Your task to perform on an android device: What's the news in Ecuador? Image 0: 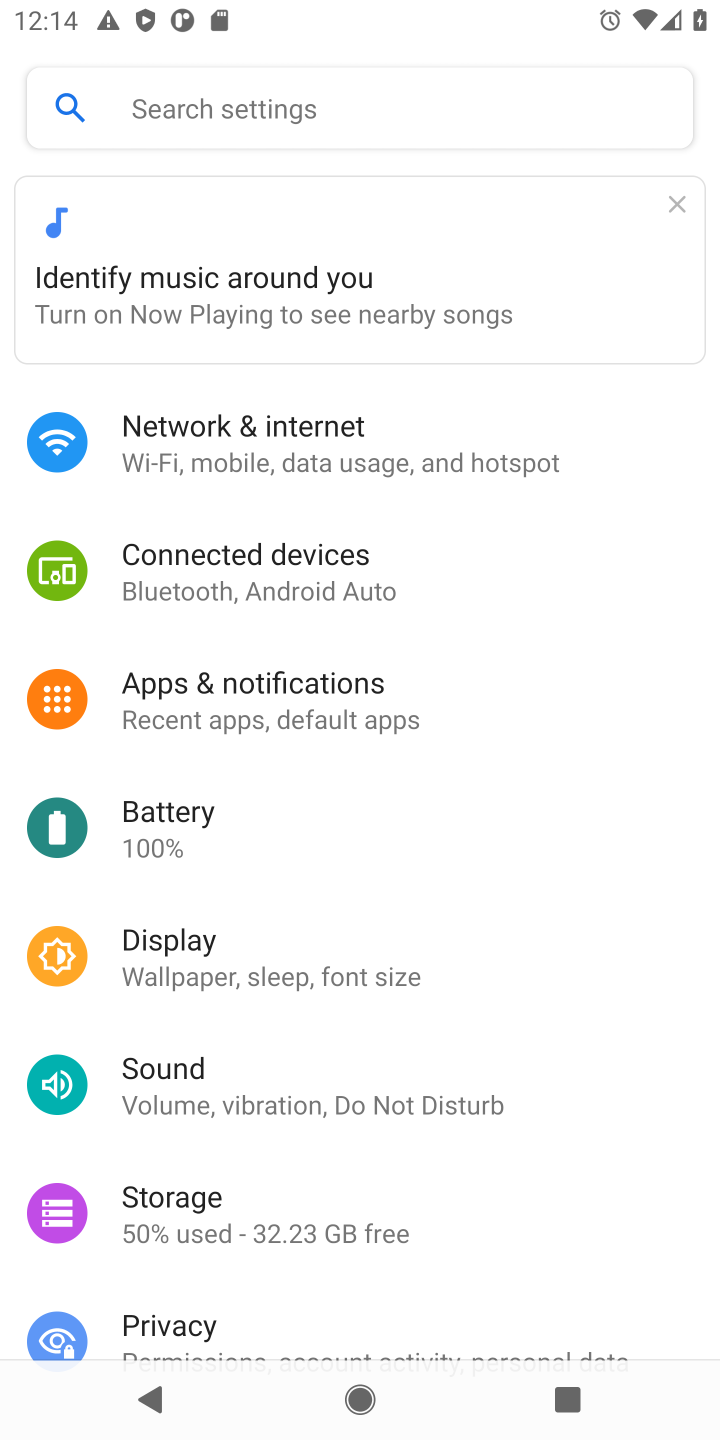
Step 0: press home button
Your task to perform on an android device: What's the news in Ecuador? Image 1: 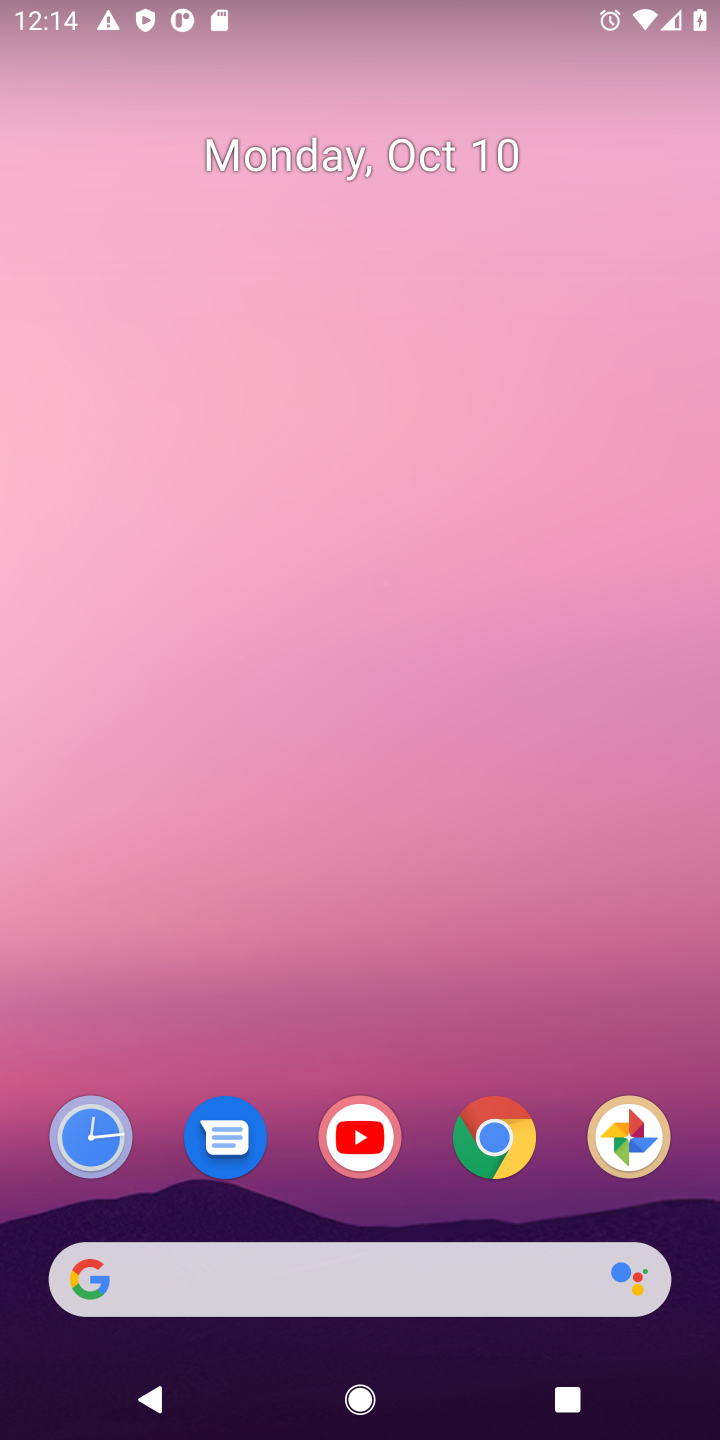
Step 1: drag from (533, 1072) to (620, 85)
Your task to perform on an android device: What's the news in Ecuador? Image 2: 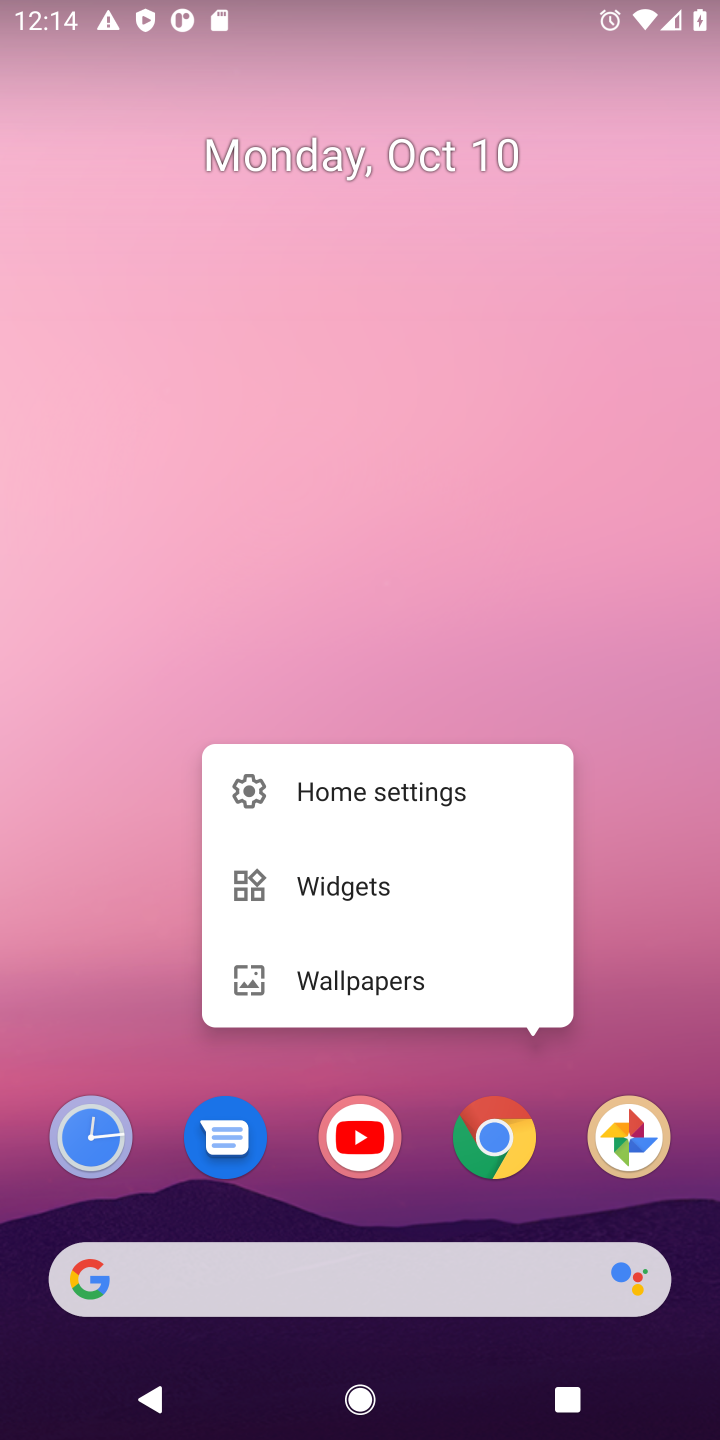
Step 2: click (441, 463)
Your task to perform on an android device: What's the news in Ecuador? Image 3: 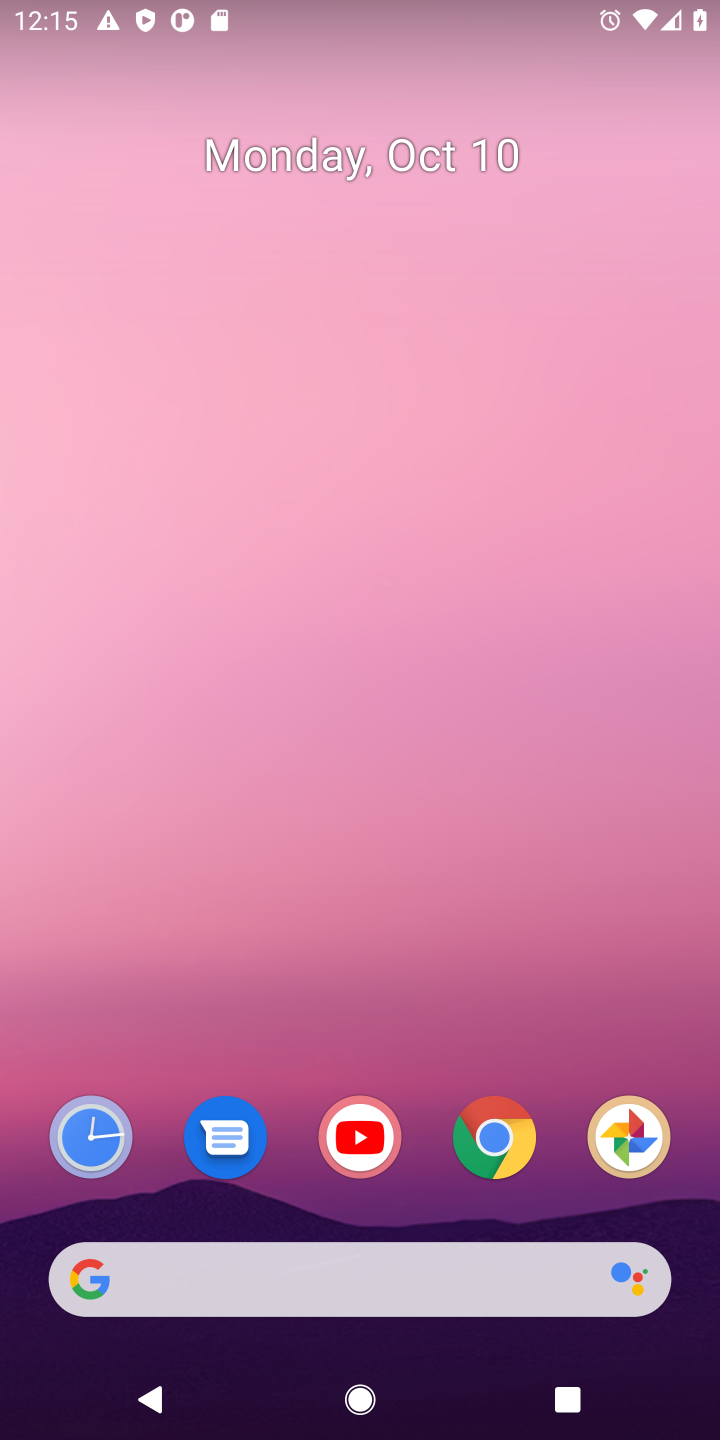
Step 3: drag from (566, 1052) to (585, 6)
Your task to perform on an android device: What's the news in Ecuador? Image 4: 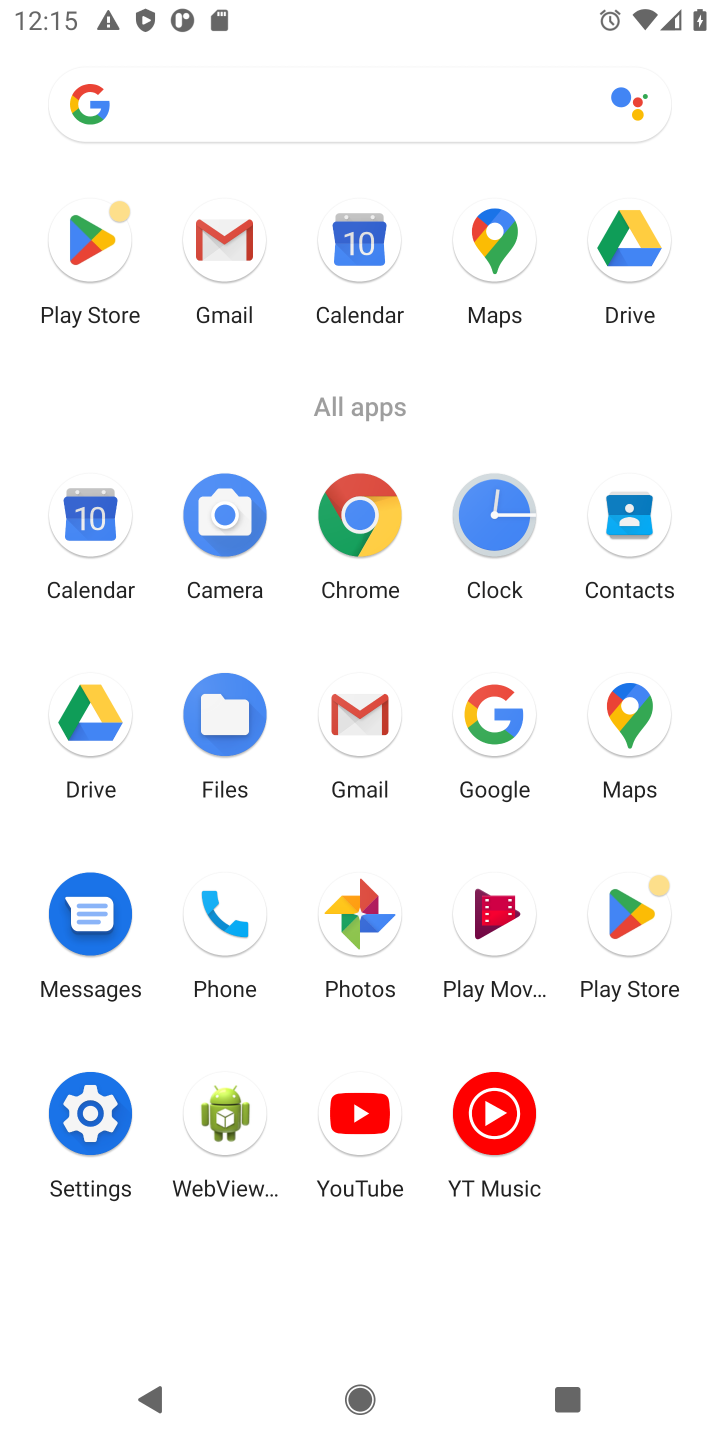
Step 4: click (364, 498)
Your task to perform on an android device: What's the news in Ecuador? Image 5: 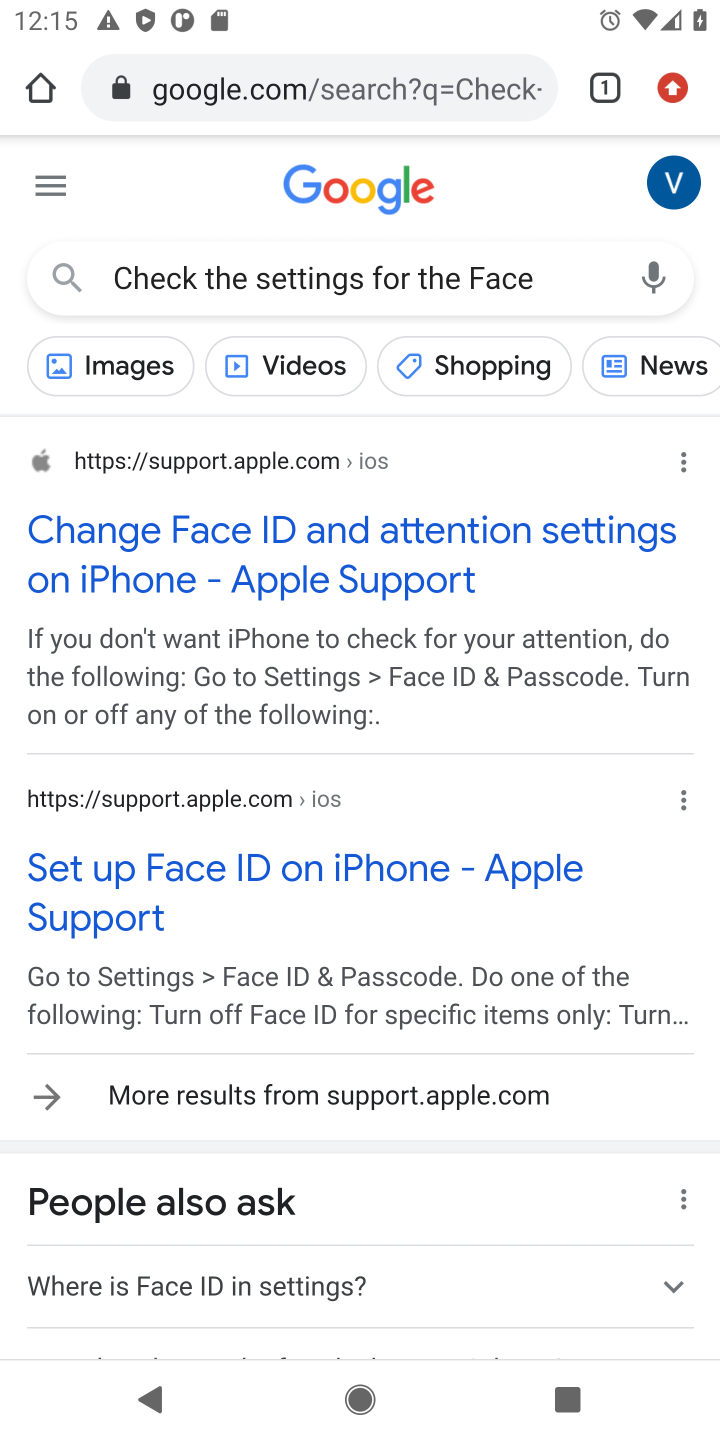
Step 5: click (453, 89)
Your task to perform on an android device: What's the news in Ecuador? Image 6: 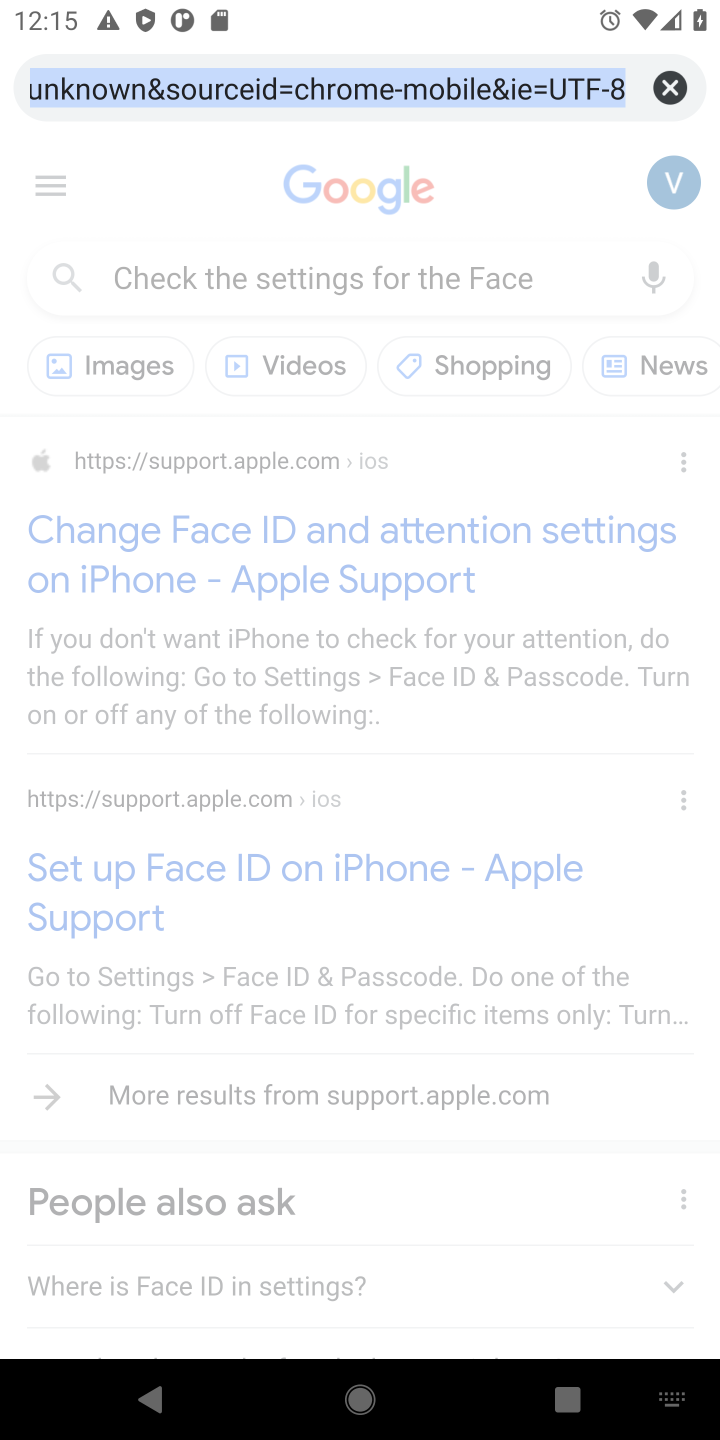
Step 6: click (674, 79)
Your task to perform on an android device: What's the news in Ecuador? Image 7: 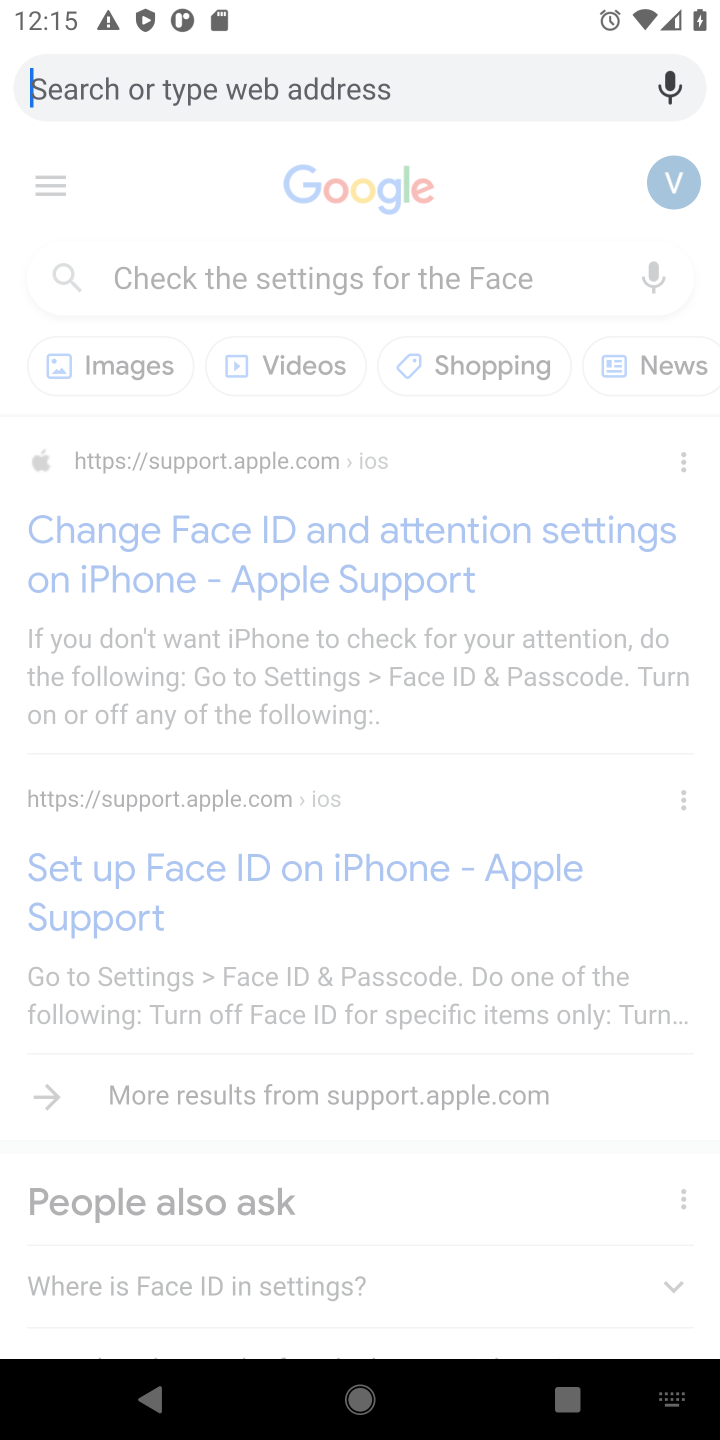
Step 7: type "What's the news in Ecuador?"
Your task to perform on an android device: What's the news in Ecuador? Image 8: 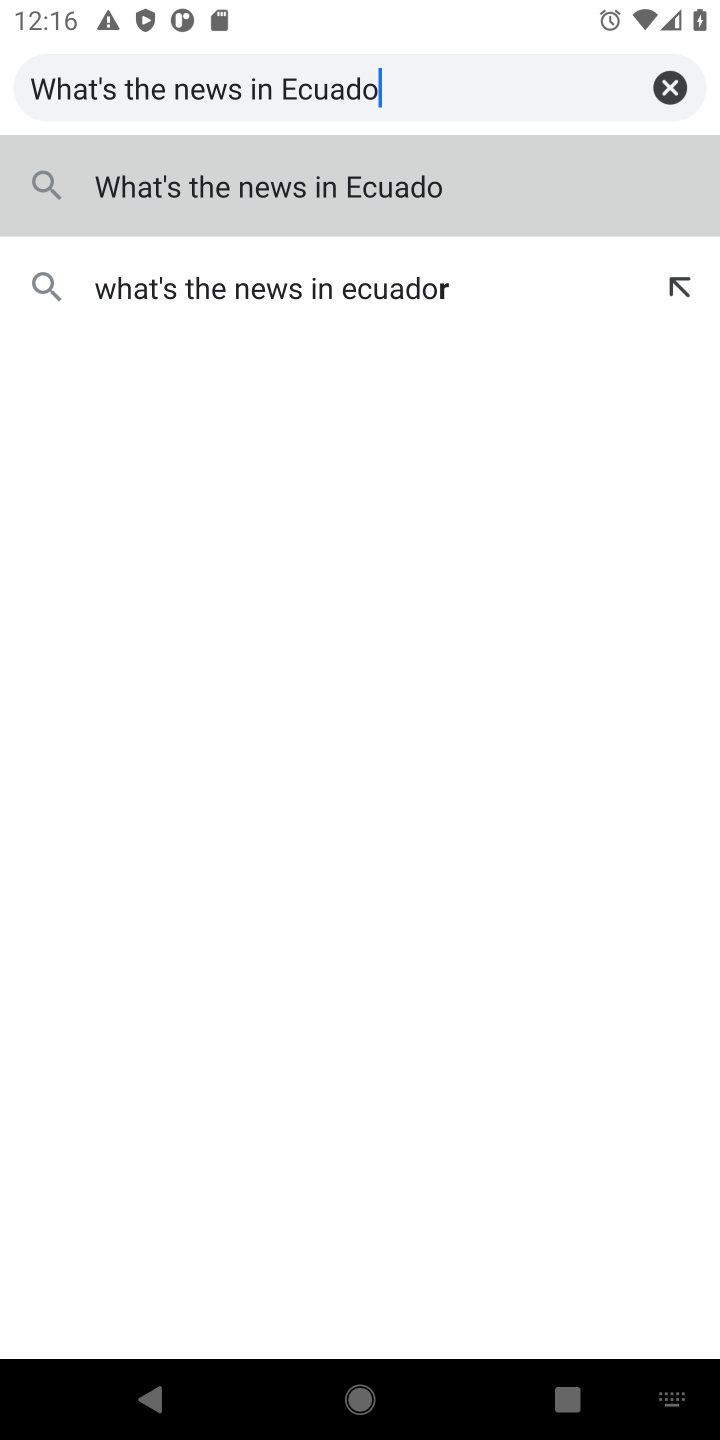
Step 8: click (409, 180)
Your task to perform on an android device: What's the news in Ecuador? Image 9: 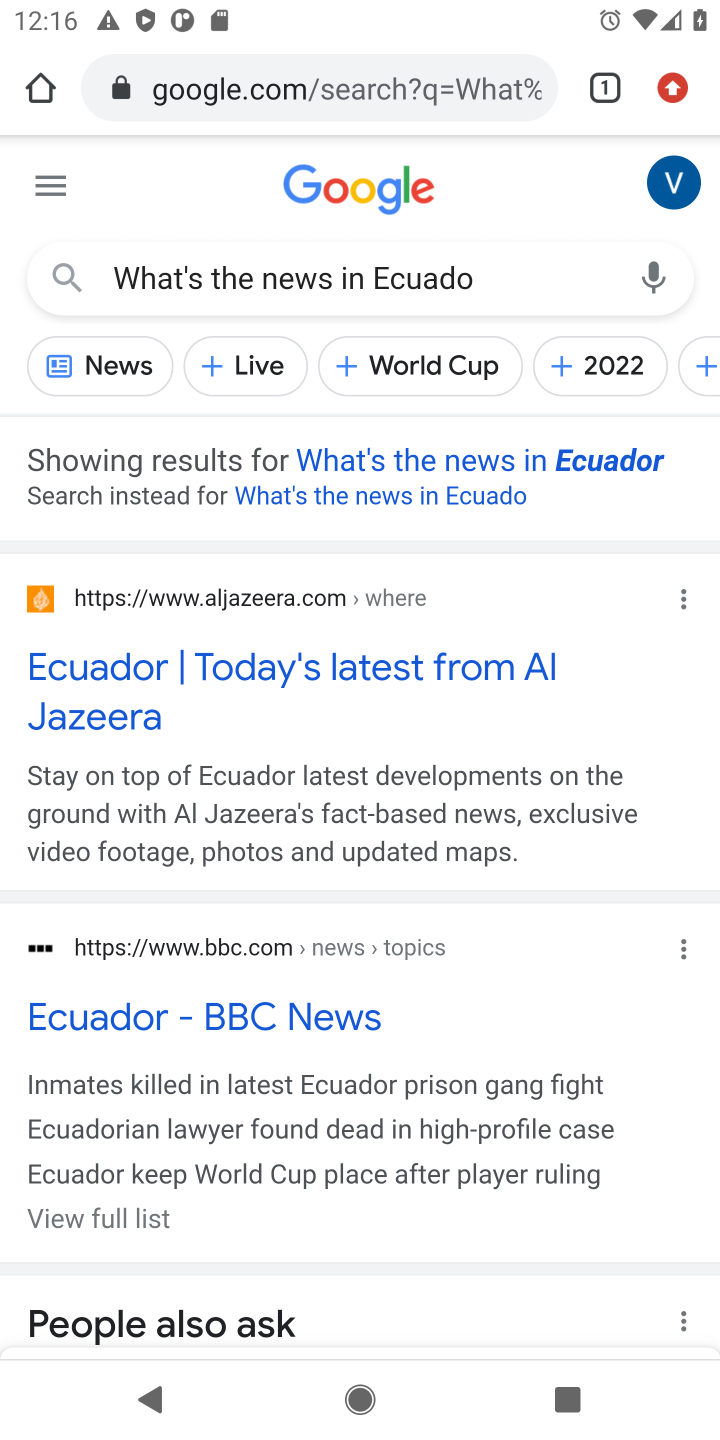
Step 9: task complete